Your task to perform on an android device: change the clock display to show seconds Image 0: 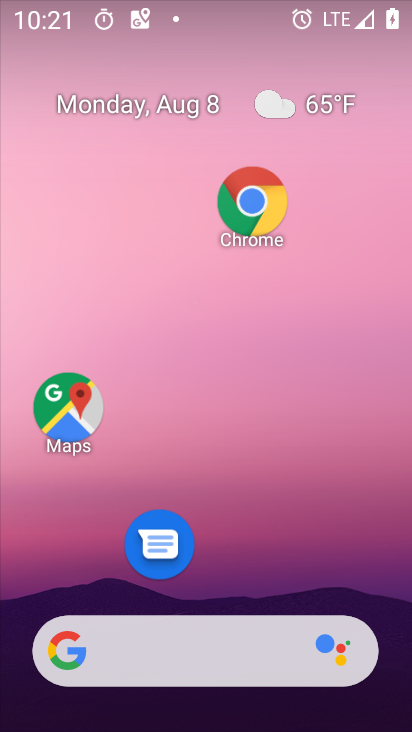
Step 0: press home button
Your task to perform on an android device: change the clock display to show seconds Image 1: 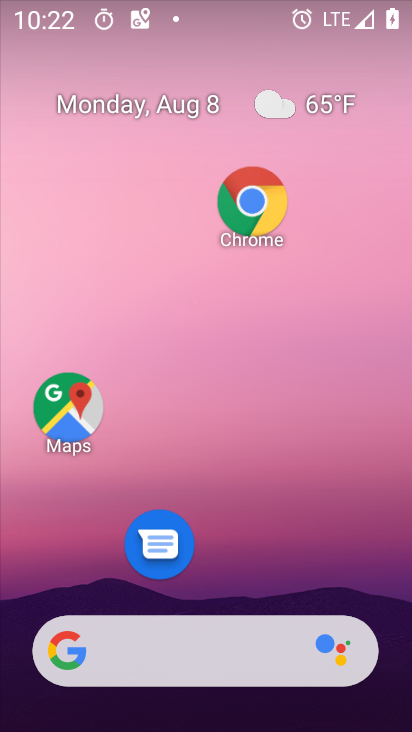
Step 1: drag from (217, 587) to (203, 21)
Your task to perform on an android device: change the clock display to show seconds Image 2: 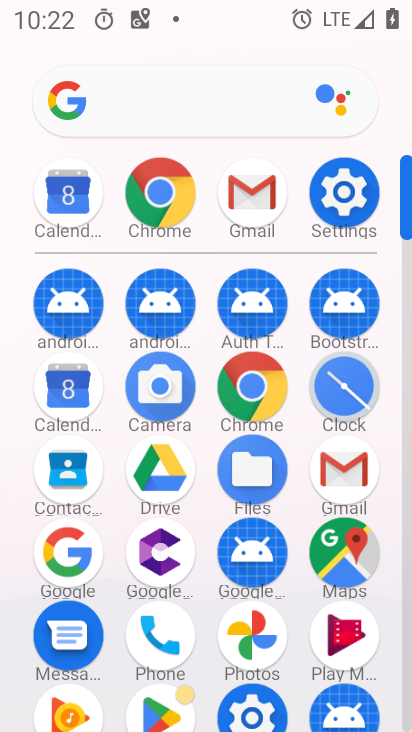
Step 2: click (342, 379)
Your task to perform on an android device: change the clock display to show seconds Image 3: 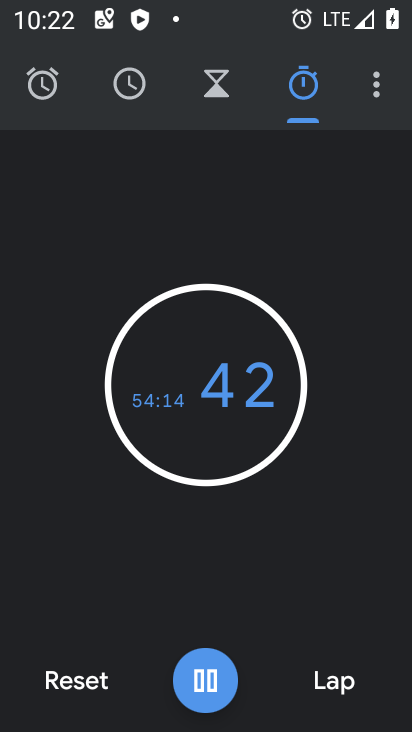
Step 3: click (375, 90)
Your task to perform on an android device: change the clock display to show seconds Image 4: 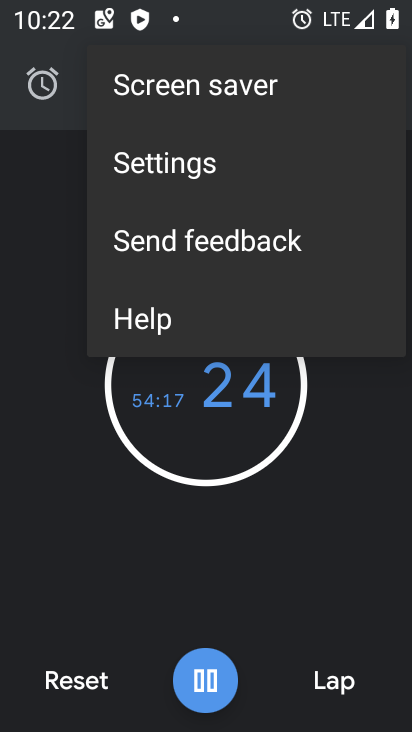
Step 4: click (223, 164)
Your task to perform on an android device: change the clock display to show seconds Image 5: 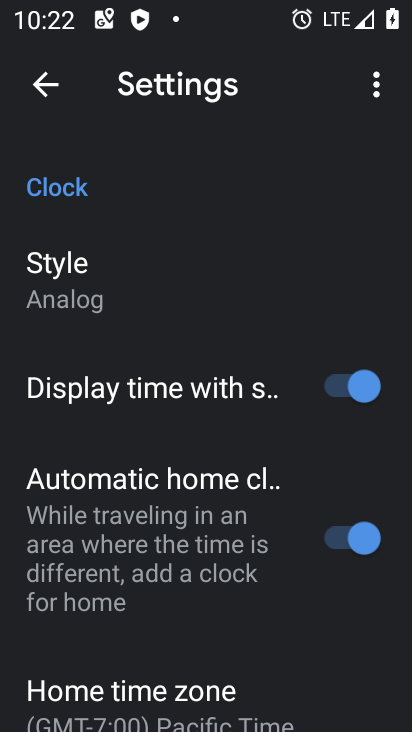
Step 5: click (353, 384)
Your task to perform on an android device: change the clock display to show seconds Image 6: 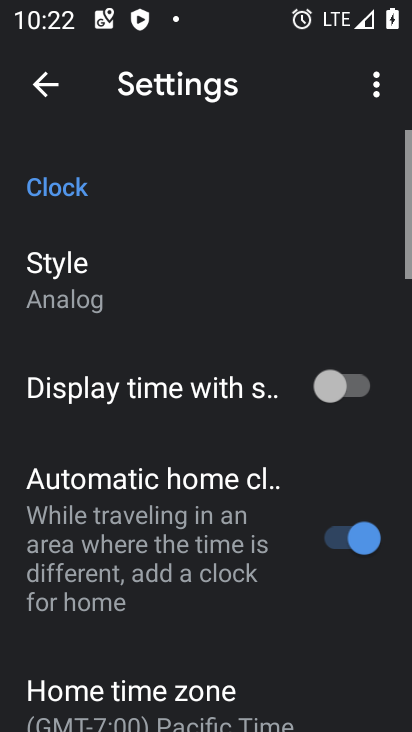
Step 6: task complete